Your task to perform on an android device: change the clock display to digital Image 0: 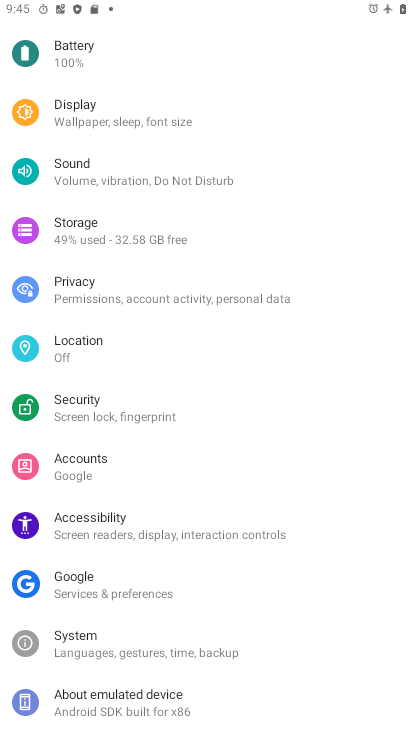
Step 0: drag from (321, 42) to (387, 508)
Your task to perform on an android device: change the clock display to digital Image 1: 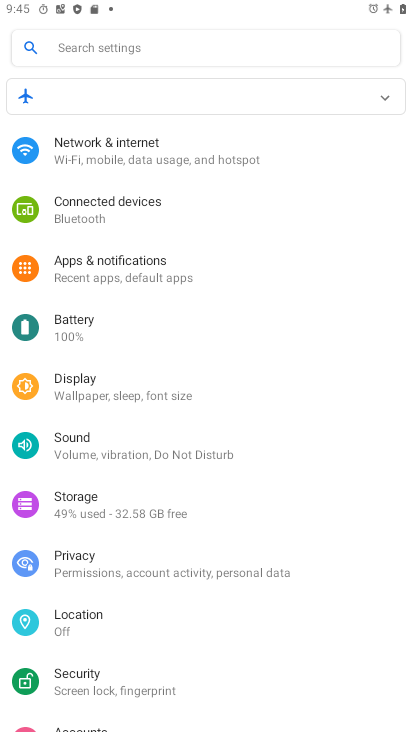
Step 1: press home button
Your task to perform on an android device: change the clock display to digital Image 2: 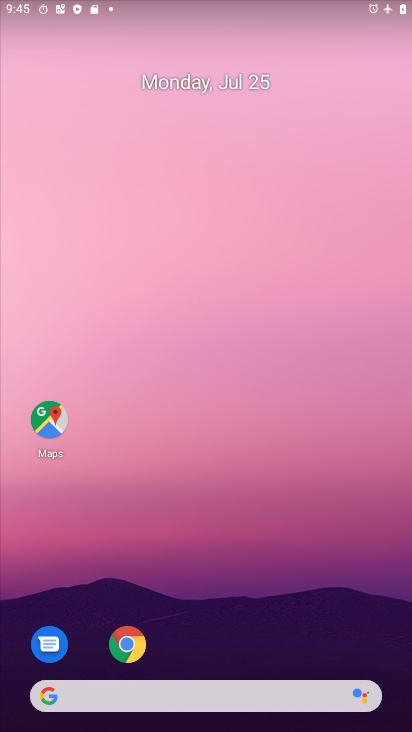
Step 2: drag from (232, 626) to (179, 92)
Your task to perform on an android device: change the clock display to digital Image 3: 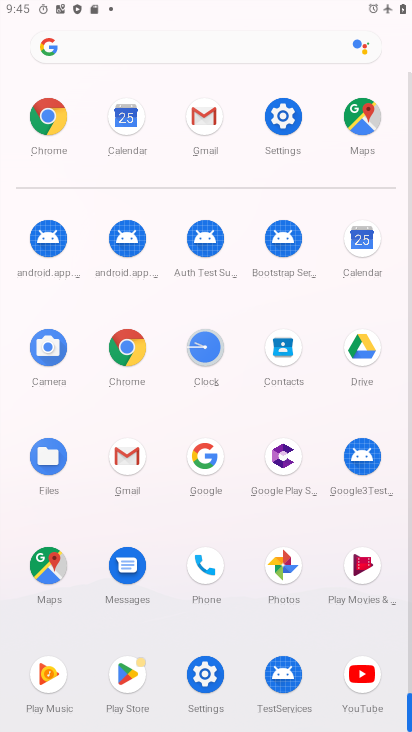
Step 3: click (199, 366)
Your task to perform on an android device: change the clock display to digital Image 4: 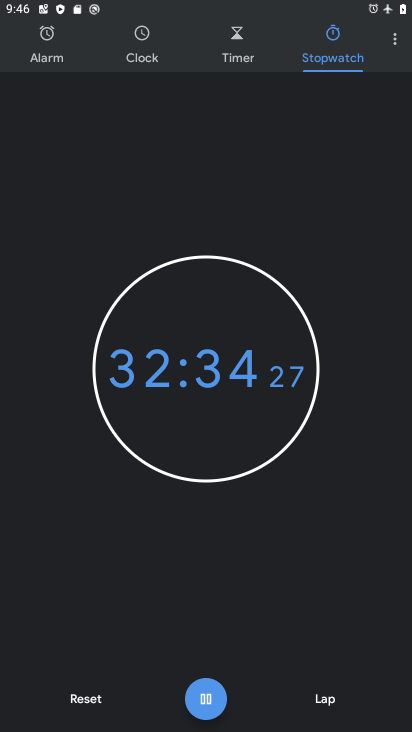
Step 4: click (397, 44)
Your task to perform on an android device: change the clock display to digital Image 5: 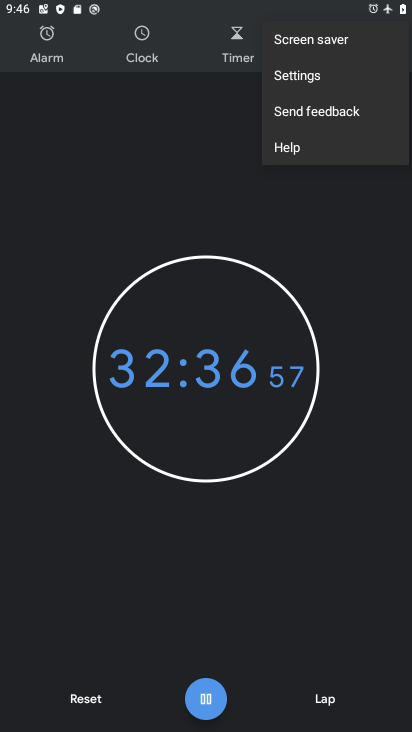
Step 5: click (331, 87)
Your task to perform on an android device: change the clock display to digital Image 6: 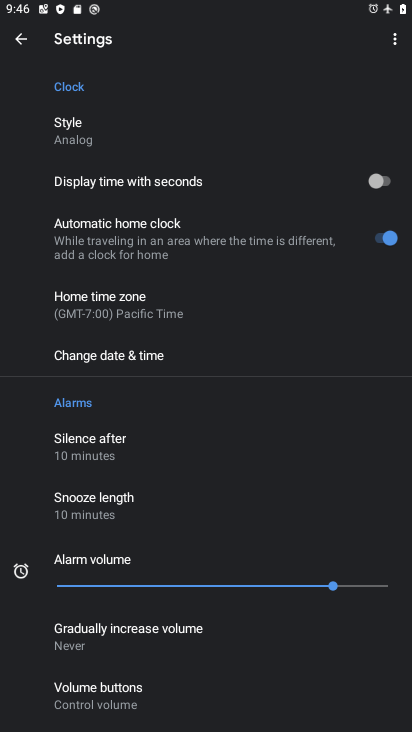
Step 6: click (154, 154)
Your task to perform on an android device: change the clock display to digital Image 7: 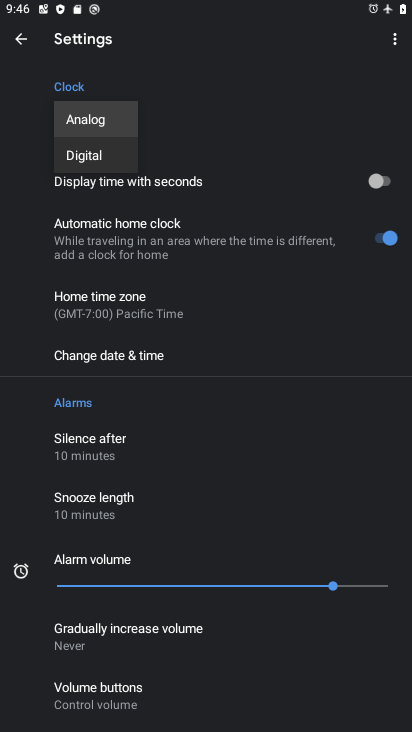
Step 7: click (102, 169)
Your task to perform on an android device: change the clock display to digital Image 8: 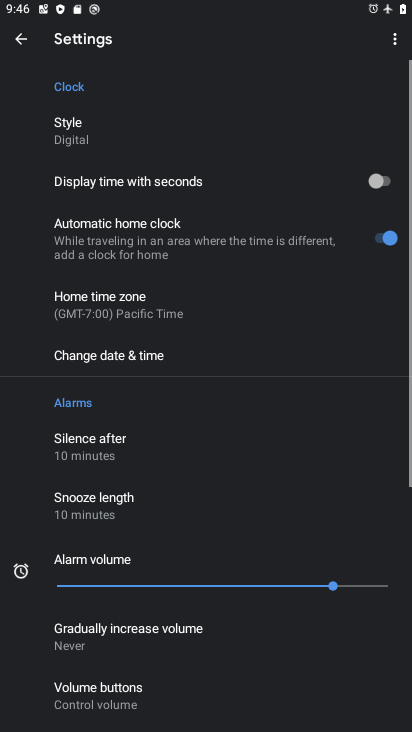
Step 8: task complete